Your task to perform on an android device: search for starred emails in the gmail app Image 0: 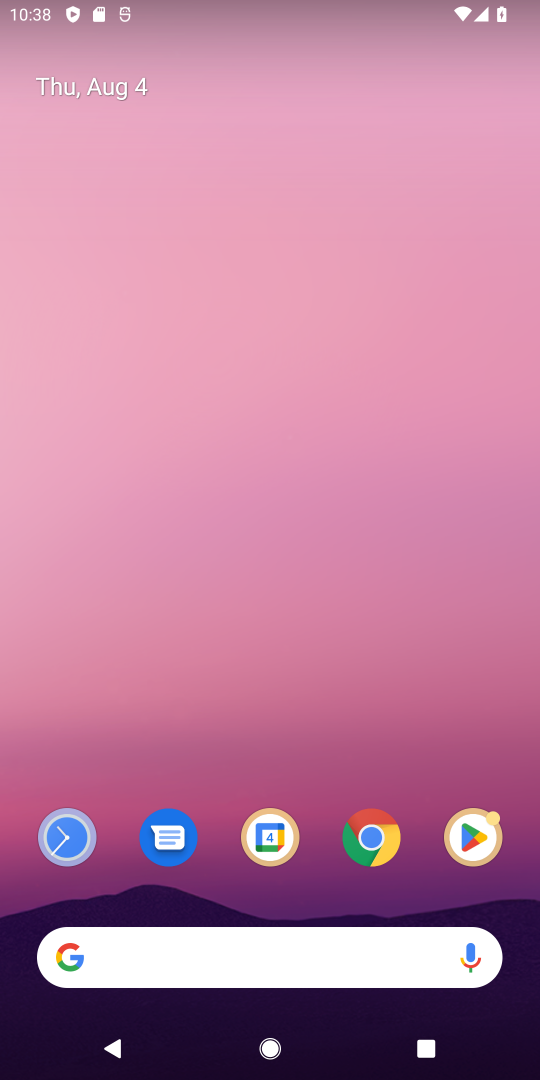
Step 0: drag from (337, 785) to (330, 5)
Your task to perform on an android device: search for starred emails in the gmail app Image 1: 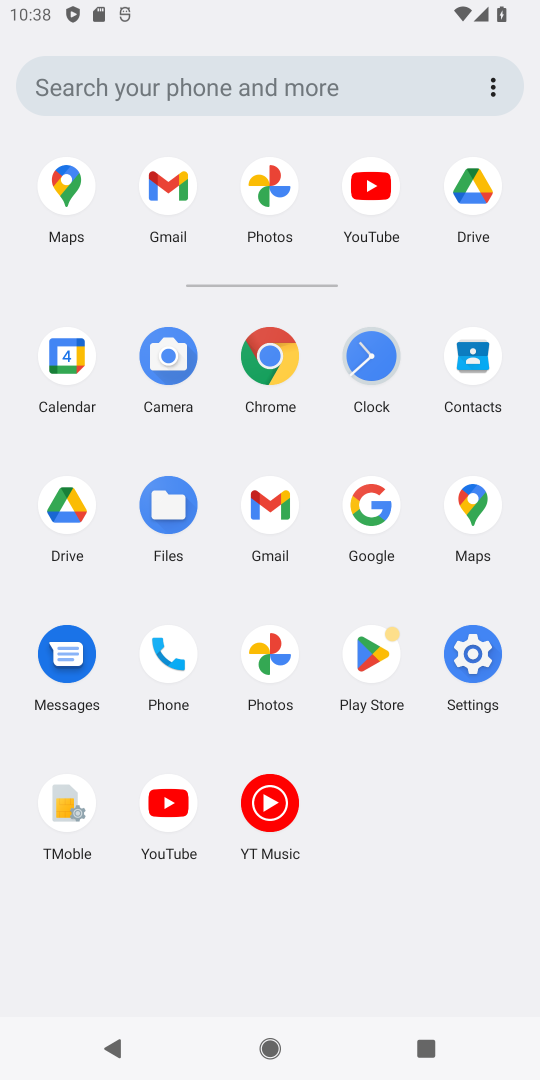
Step 1: click (279, 502)
Your task to perform on an android device: search for starred emails in the gmail app Image 2: 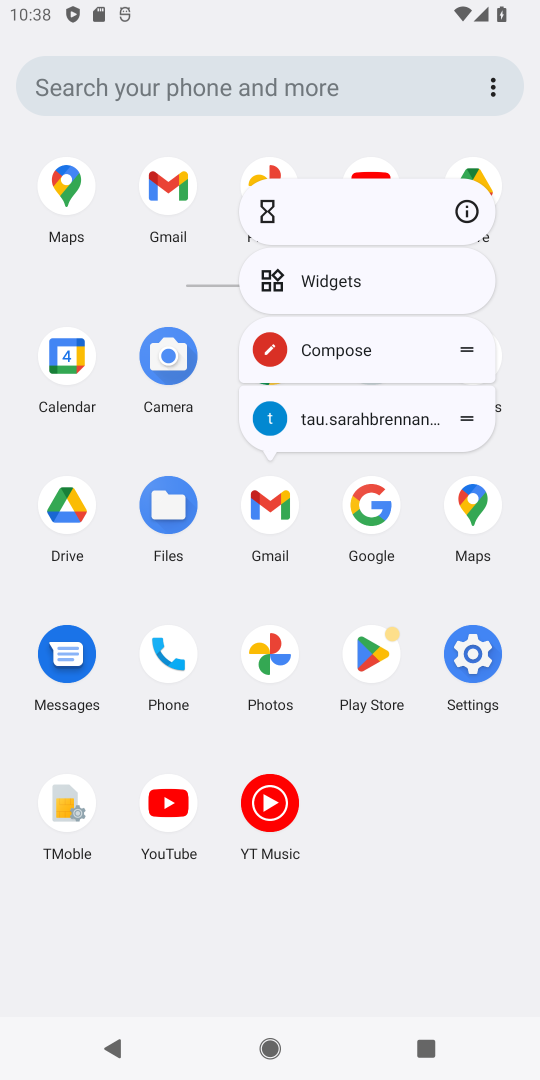
Step 2: click (279, 515)
Your task to perform on an android device: search for starred emails in the gmail app Image 3: 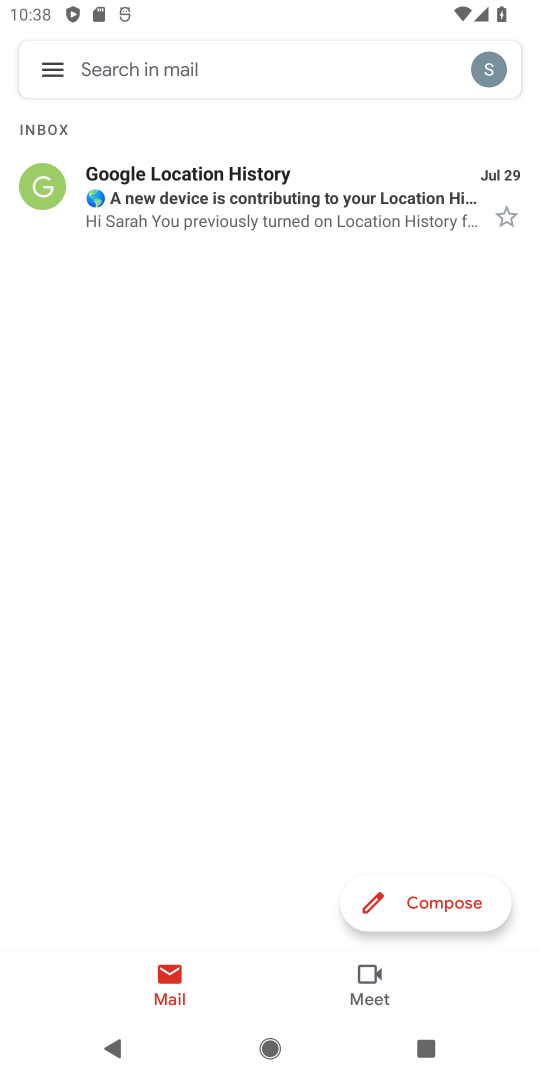
Step 3: click (32, 74)
Your task to perform on an android device: search for starred emails in the gmail app Image 4: 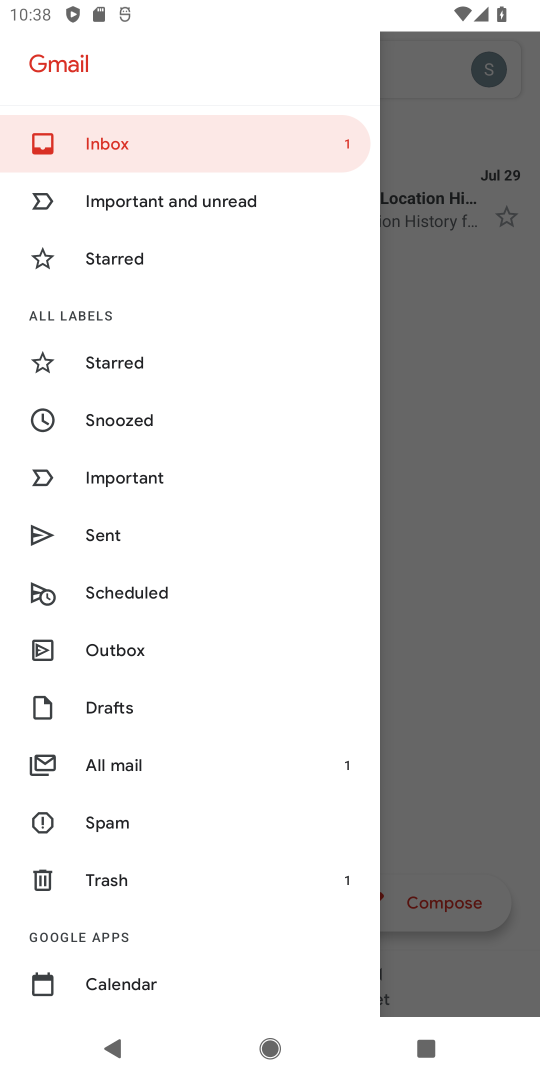
Step 4: click (135, 366)
Your task to perform on an android device: search for starred emails in the gmail app Image 5: 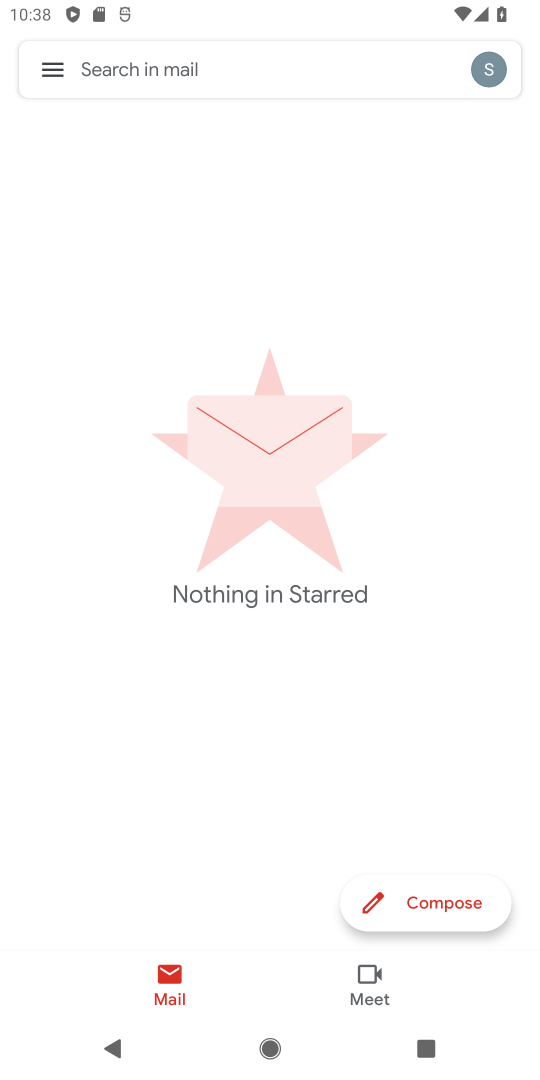
Step 5: task complete